Your task to perform on an android device: Go to internet settings Image 0: 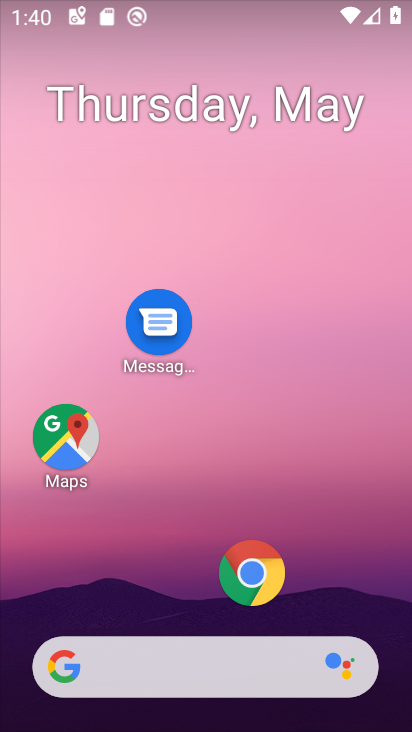
Step 0: drag from (172, 479) to (217, 164)
Your task to perform on an android device: Go to internet settings Image 1: 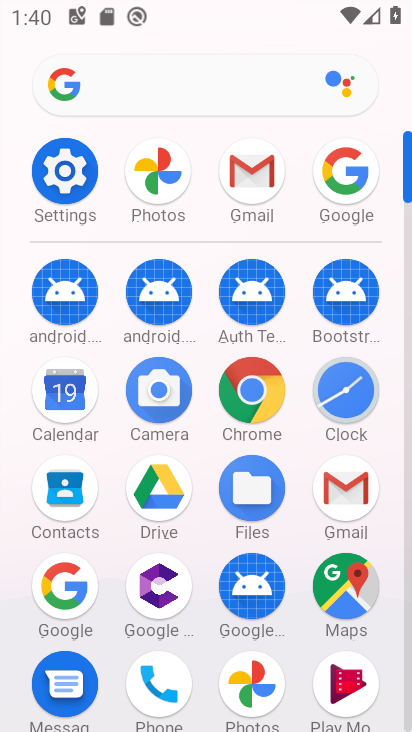
Step 1: click (57, 184)
Your task to perform on an android device: Go to internet settings Image 2: 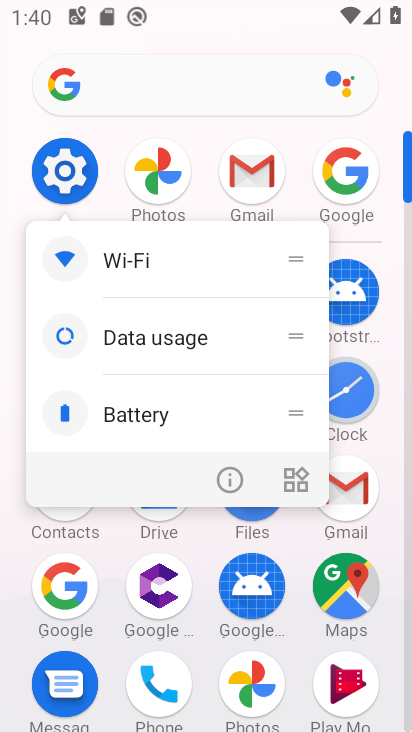
Step 2: click (224, 483)
Your task to perform on an android device: Go to internet settings Image 3: 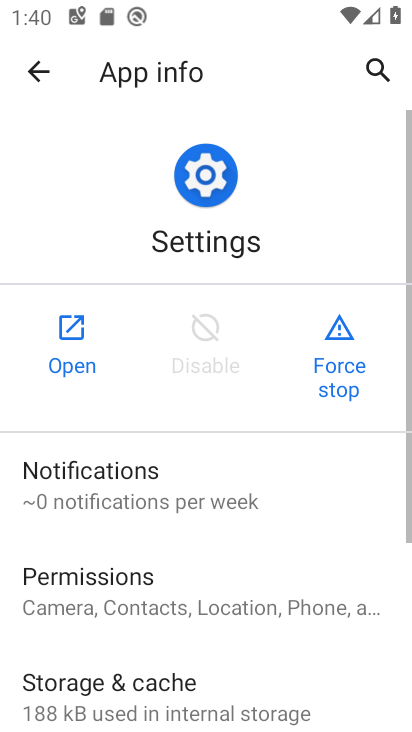
Step 3: click (59, 339)
Your task to perform on an android device: Go to internet settings Image 4: 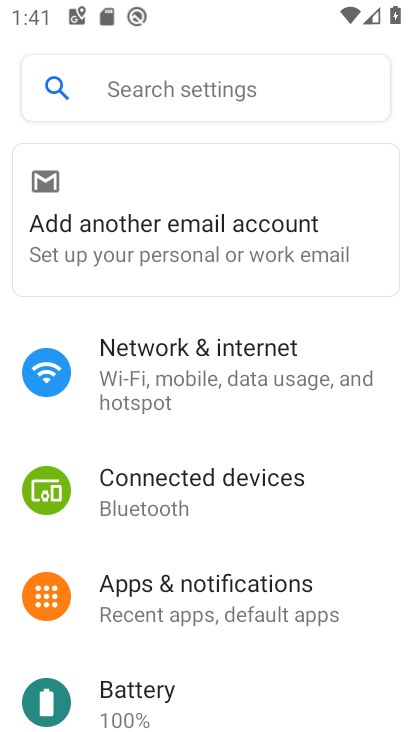
Step 4: click (193, 357)
Your task to perform on an android device: Go to internet settings Image 5: 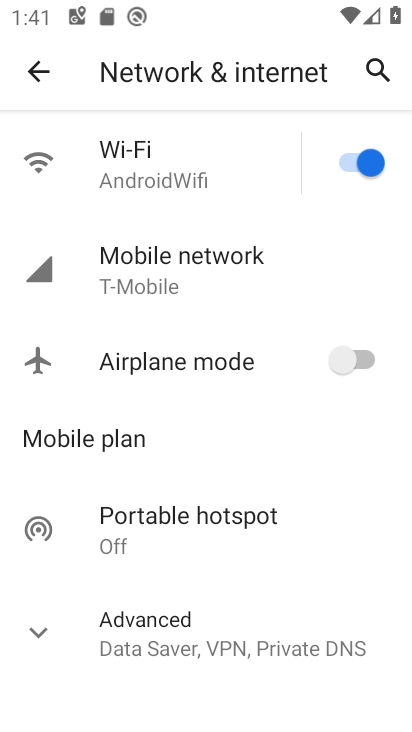
Step 5: task complete